Your task to perform on an android device: Open Android settings Image 0: 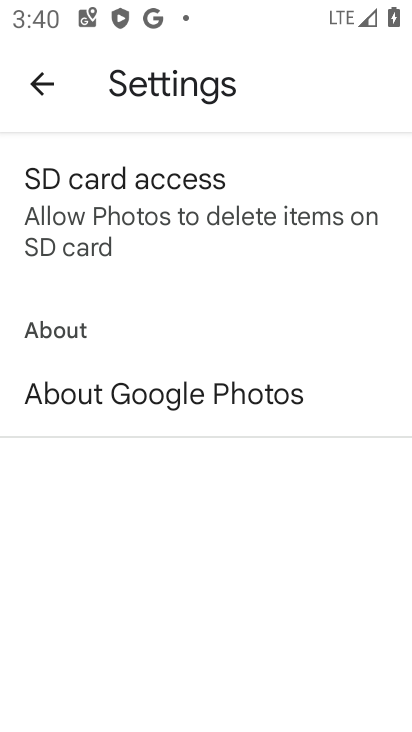
Step 0: press home button
Your task to perform on an android device: Open Android settings Image 1: 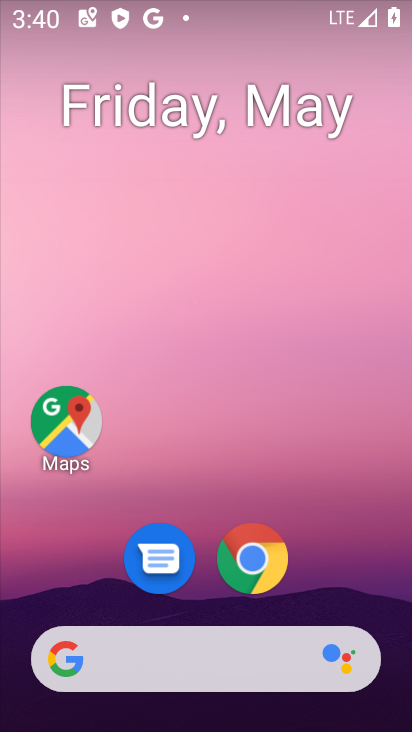
Step 1: drag from (170, 655) to (290, 157)
Your task to perform on an android device: Open Android settings Image 2: 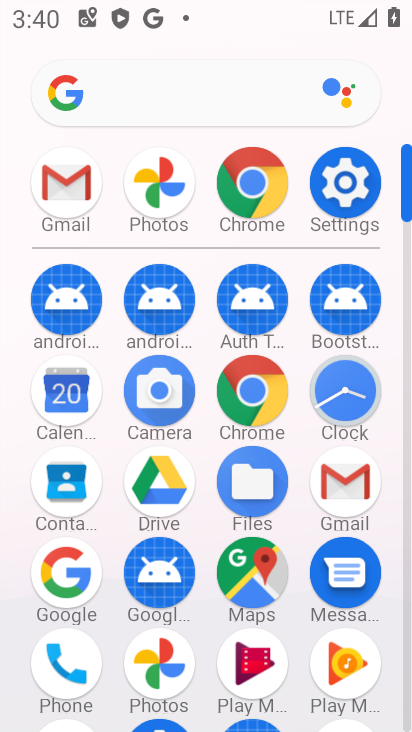
Step 2: click (346, 190)
Your task to perform on an android device: Open Android settings Image 3: 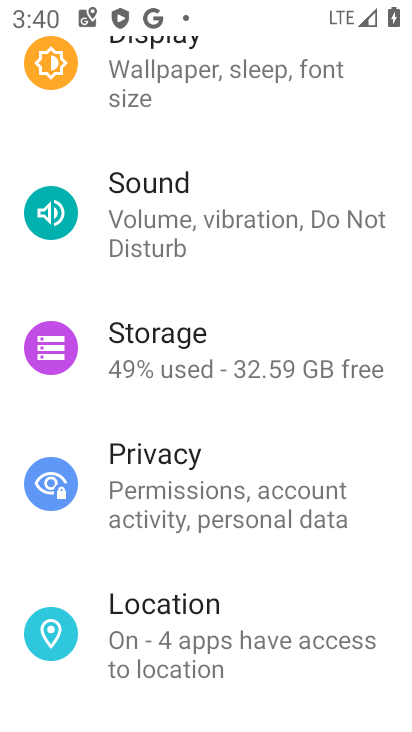
Step 3: drag from (240, 669) to (382, 201)
Your task to perform on an android device: Open Android settings Image 4: 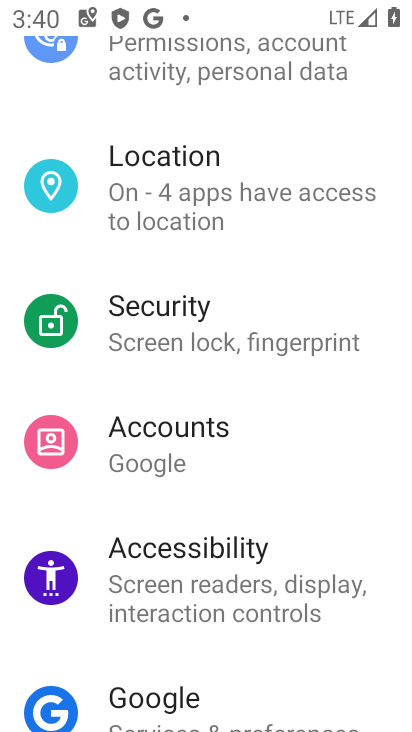
Step 4: drag from (277, 676) to (376, 145)
Your task to perform on an android device: Open Android settings Image 5: 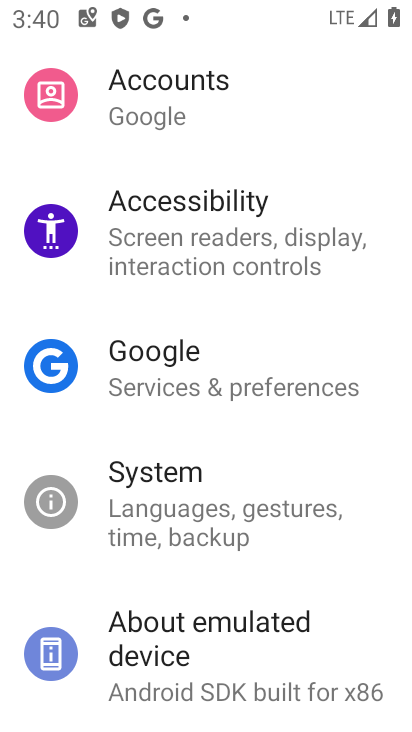
Step 5: click (216, 662)
Your task to perform on an android device: Open Android settings Image 6: 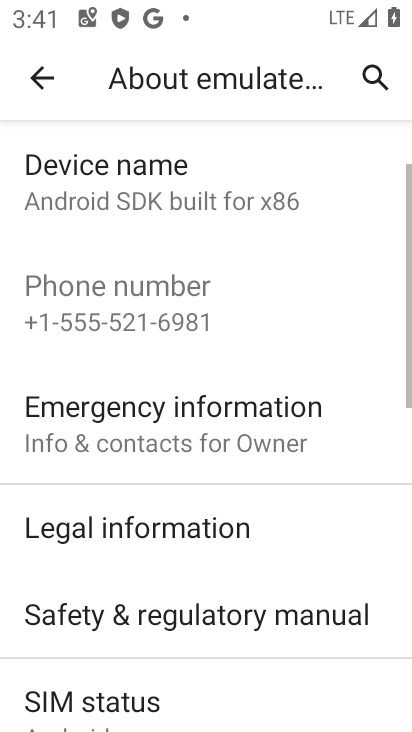
Step 6: task complete